Your task to perform on an android device: toggle improve location accuracy Image 0: 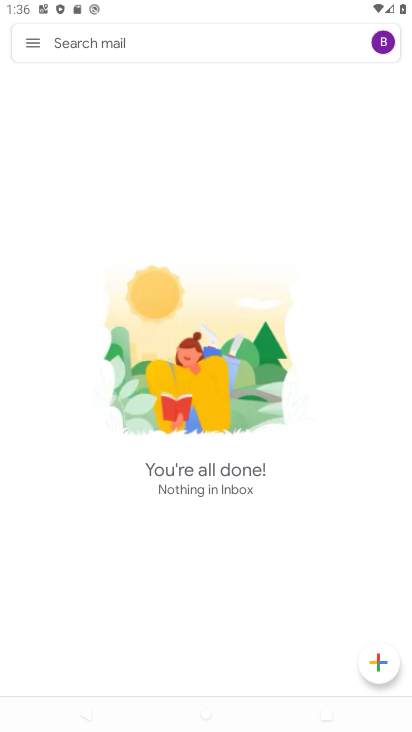
Step 0: press home button
Your task to perform on an android device: toggle improve location accuracy Image 1: 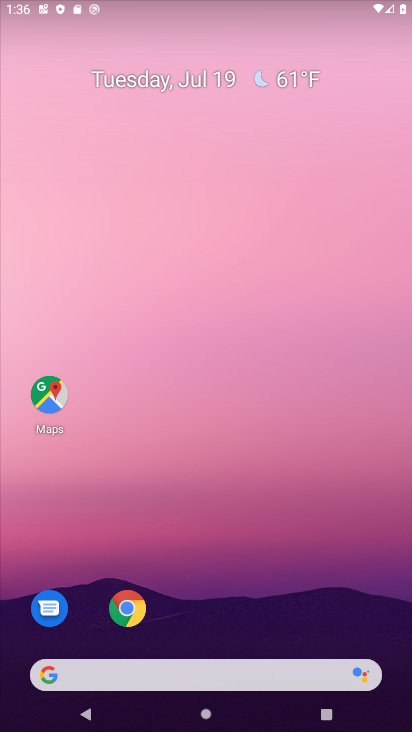
Step 1: drag from (240, 548) to (287, 16)
Your task to perform on an android device: toggle improve location accuracy Image 2: 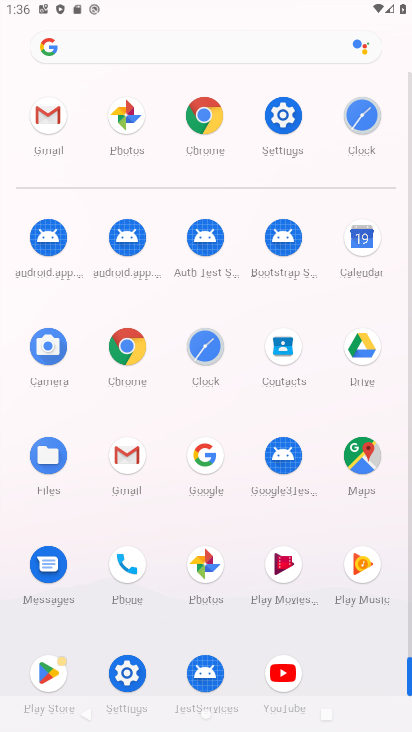
Step 2: click (282, 119)
Your task to perform on an android device: toggle improve location accuracy Image 3: 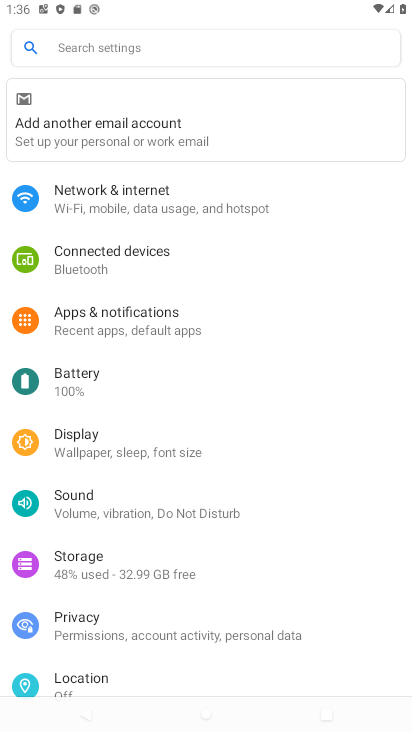
Step 3: click (77, 682)
Your task to perform on an android device: toggle improve location accuracy Image 4: 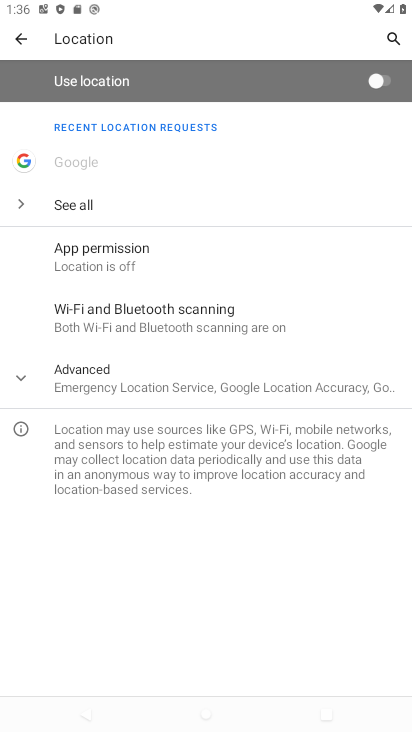
Step 4: click (120, 387)
Your task to perform on an android device: toggle improve location accuracy Image 5: 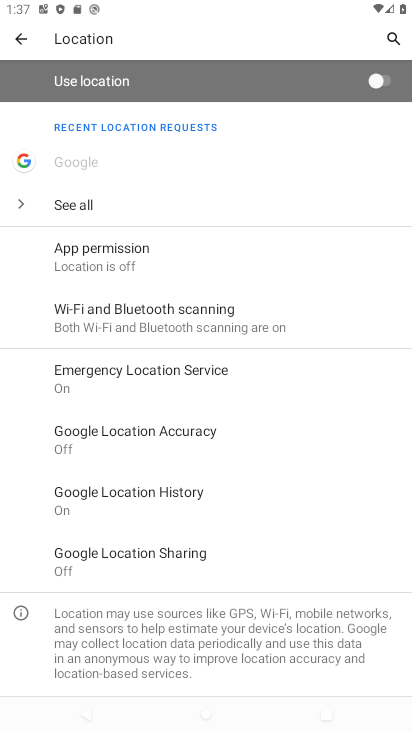
Step 5: click (164, 445)
Your task to perform on an android device: toggle improve location accuracy Image 6: 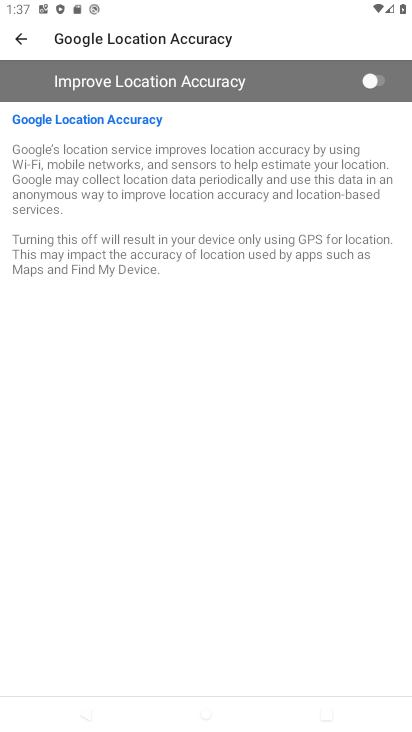
Step 6: task complete